Your task to perform on an android device: Go to battery settings Image 0: 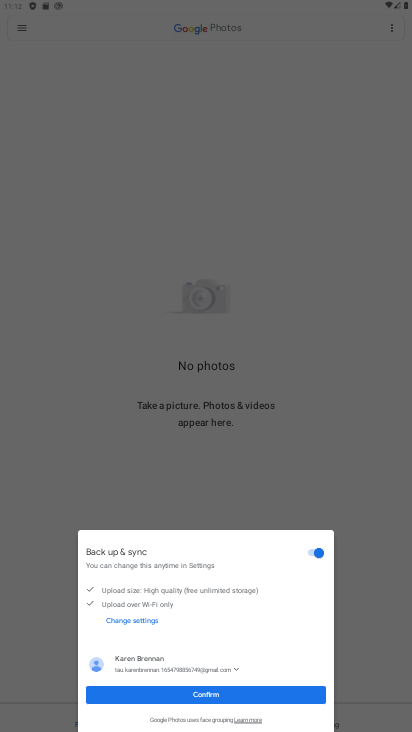
Step 0: press home button
Your task to perform on an android device: Go to battery settings Image 1: 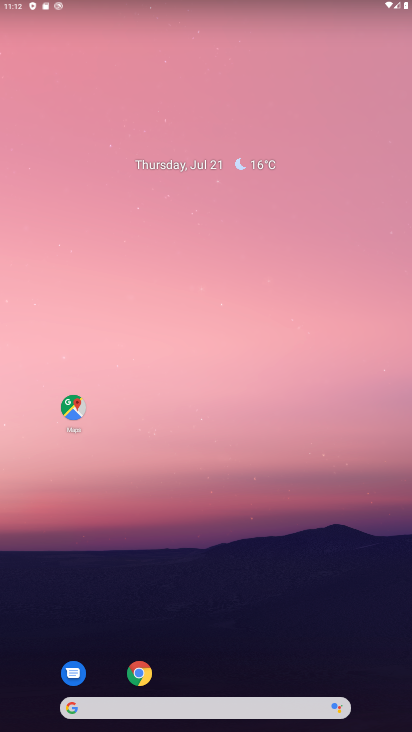
Step 1: drag from (353, 638) to (330, 20)
Your task to perform on an android device: Go to battery settings Image 2: 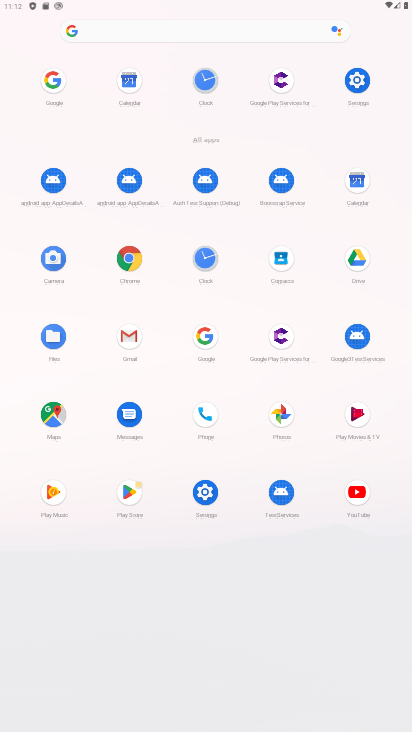
Step 2: click (363, 85)
Your task to perform on an android device: Go to battery settings Image 3: 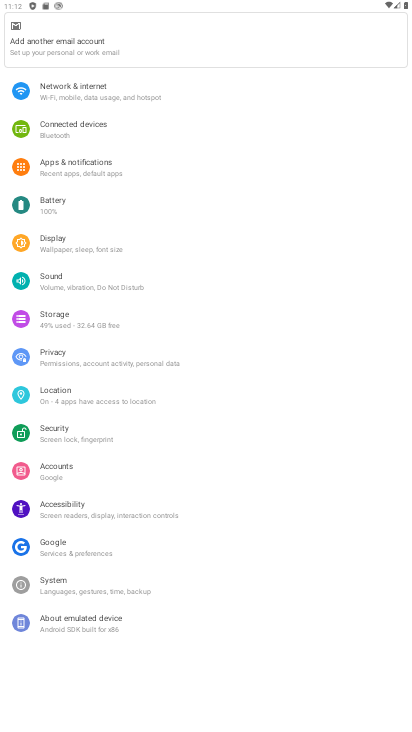
Step 3: click (55, 207)
Your task to perform on an android device: Go to battery settings Image 4: 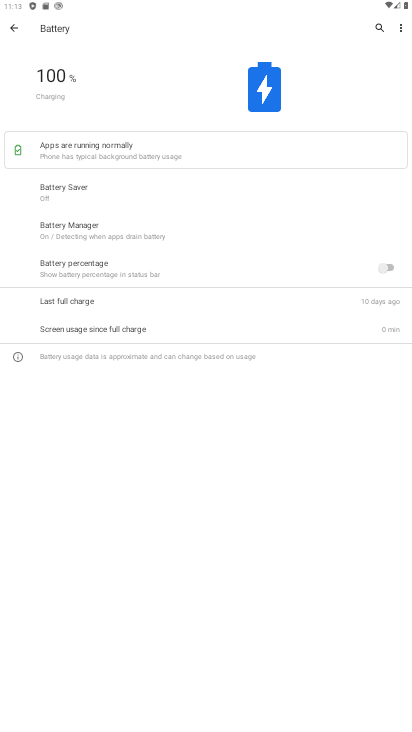
Step 4: task complete